Your task to perform on an android device: Is it going to rain today? Image 0: 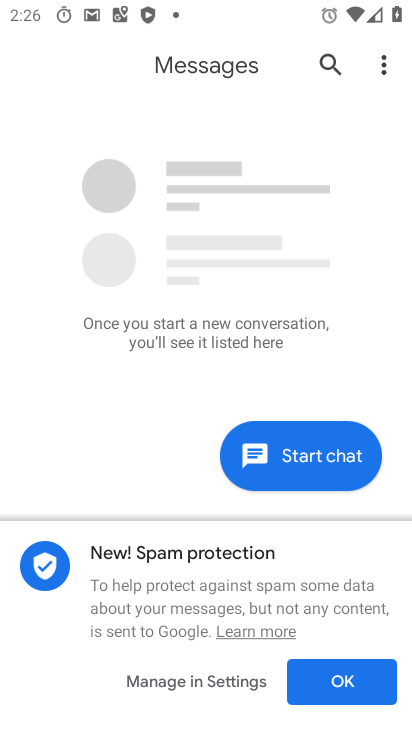
Step 0: press home button
Your task to perform on an android device: Is it going to rain today? Image 1: 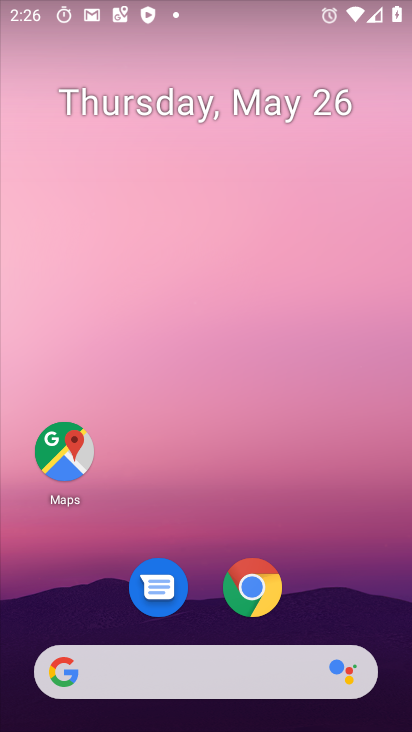
Step 1: drag from (170, 688) to (173, 148)
Your task to perform on an android device: Is it going to rain today? Image 2: 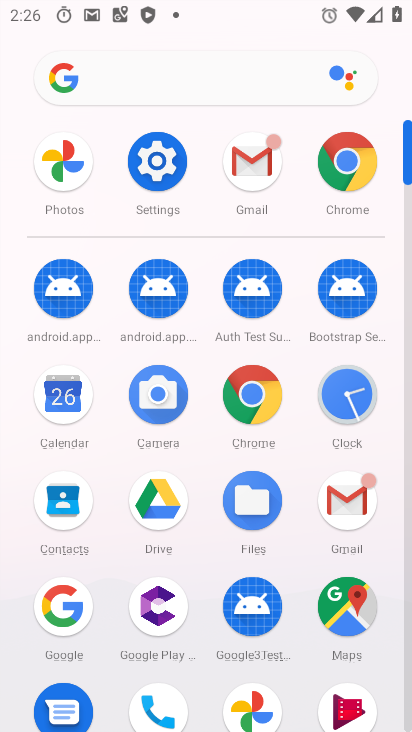
Step 2: click (146, 88)
Your task to perform on an android device: Is it going to rain today? Image 3: 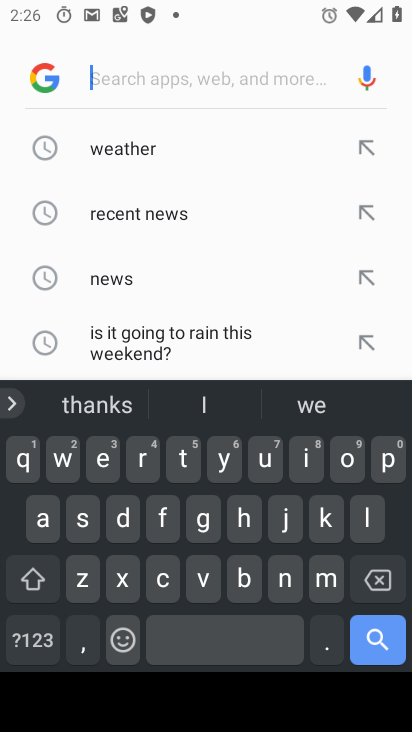
Step 3: click (131, 464)
Your task to perform on an android device: Is it going to rain today? Image 4: 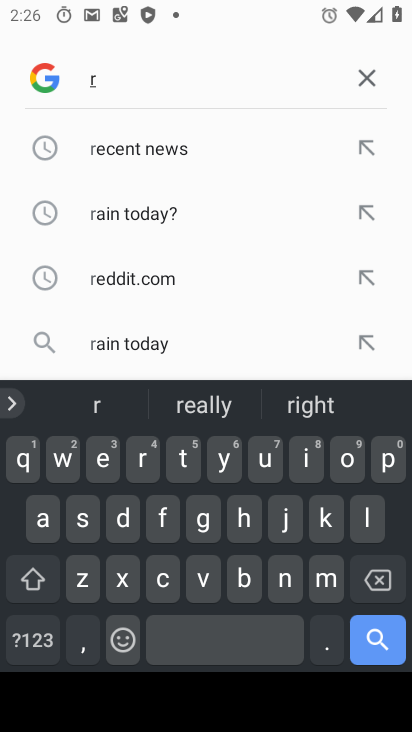
Step 4: click (36, 521)
Your task to perform on an android device: Is it going to rain today? Image 5: 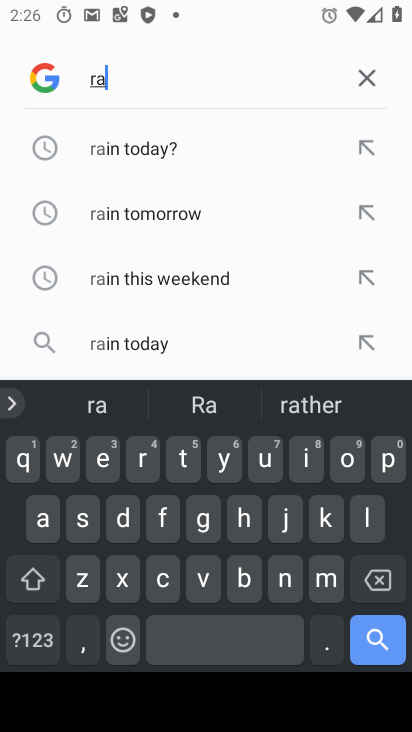
Step 5: click (192, 158)
Your task to perform on an android device: Is it going to rain today? Image 6: 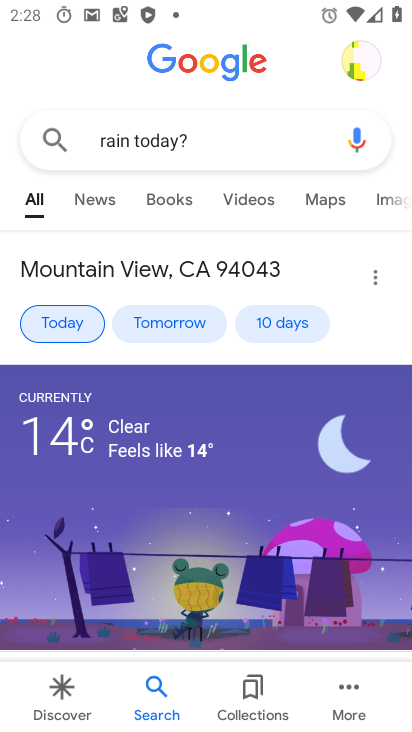
Step 6: task complete